Your task to perform on an android device: Go to Google maps Image 0: 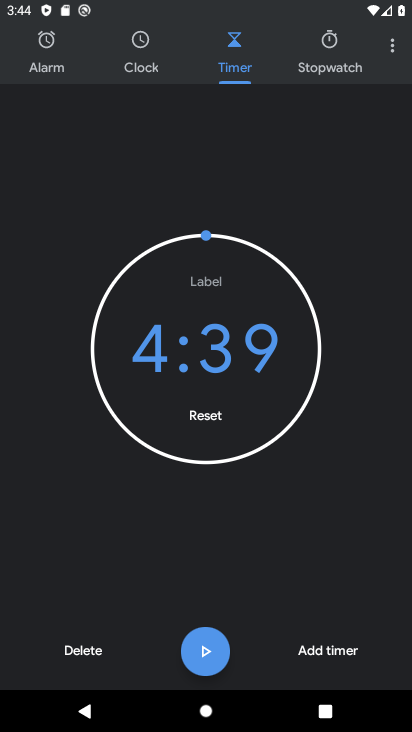
Step 0: press home button
Your task to perform on an android device: Go to Google maps Image 1: 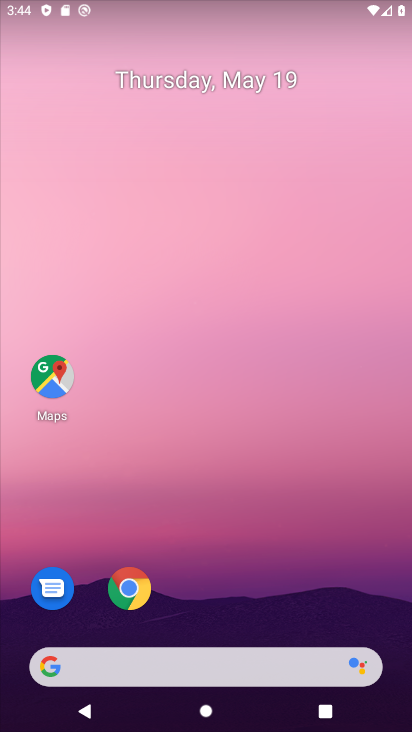
Step 1: click (51, 385)
Your task to perform on an android device: Go to Google maps Image 2: 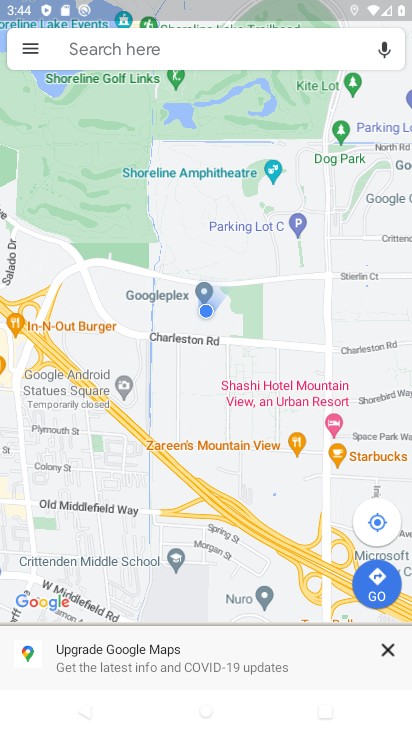
Step 2: task complete